Your task to perform on an android device: check google app version Image 0: 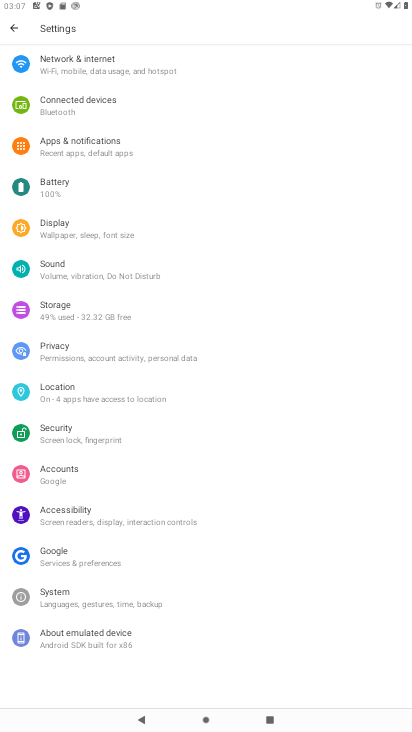
Step 0: press home button
Your task to perform on an android device: check google app version Image 1: 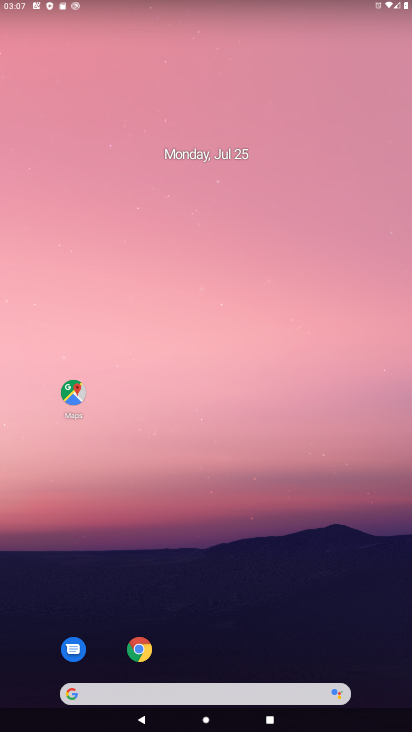
Step 1: click (140, 649)
Your task to perform on an android device: check google app version Image 2: 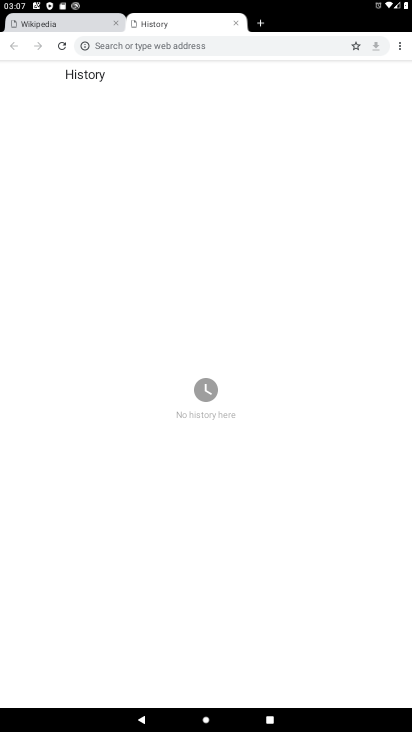
Step 2: click (401, 49)
Your task to perform on an android device: check google app version Image 3: 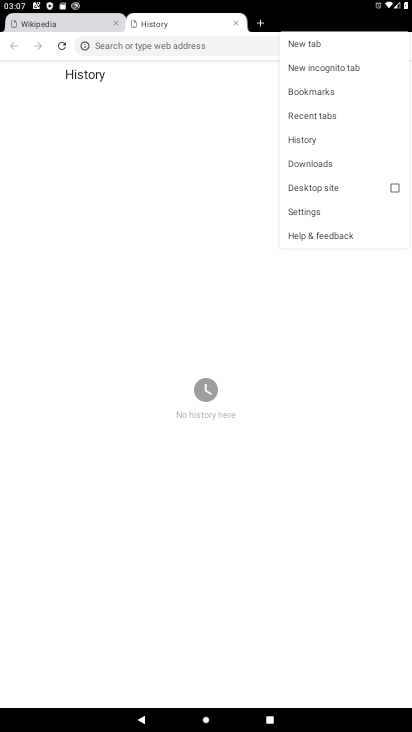
Step 3: click (298, 212)
Your task to perform on an android device: check google app version Image 4: 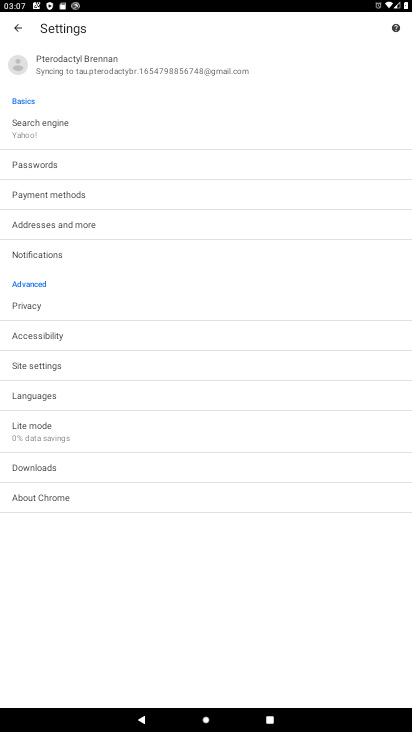
Step 4: click (37, 498)
Your task to perform on an android device: check google app version Image 5: 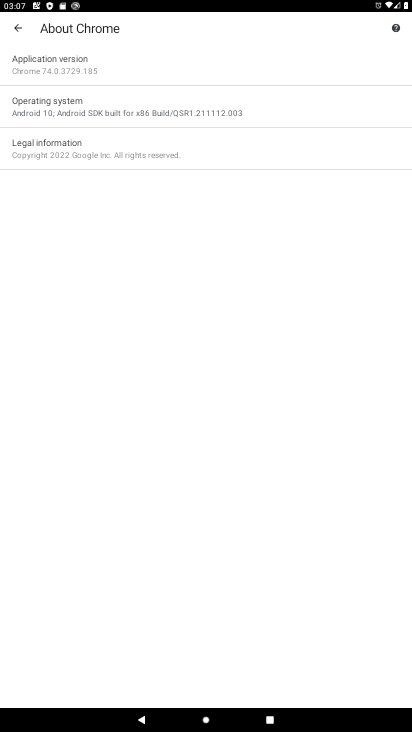
Step 5: click (56, 64)
Your task to perform on an android device: check google app version Image 6: 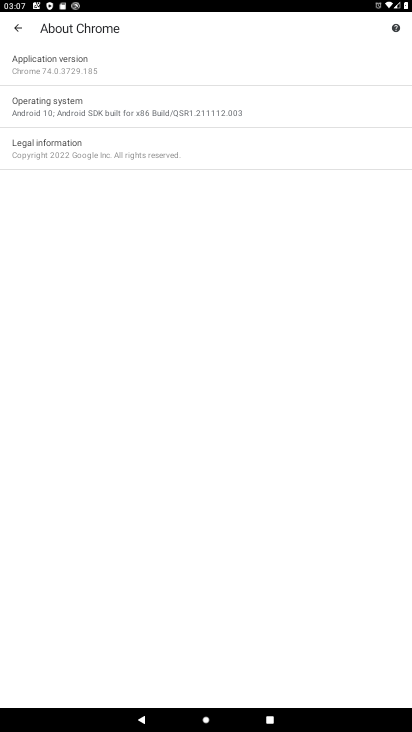
Step 6: task complete